Your task to perform on an android device: Go to privacy settings Image 0: 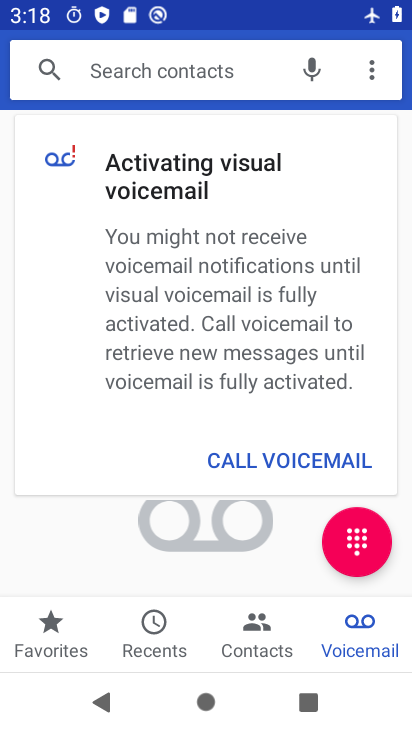
Step 0: press home button
Your task to perform on an android device: Go to privacy settings Image 1: 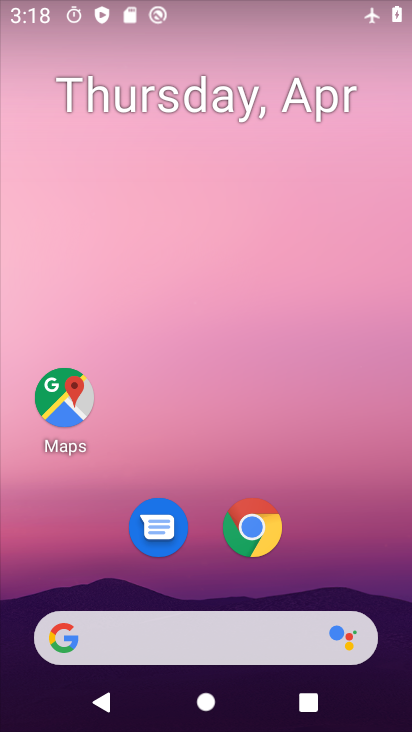
Step 1: drag from (313, 542) to (278, 161)
Your task to perform on an android device: Go to privacy settings Image 2: 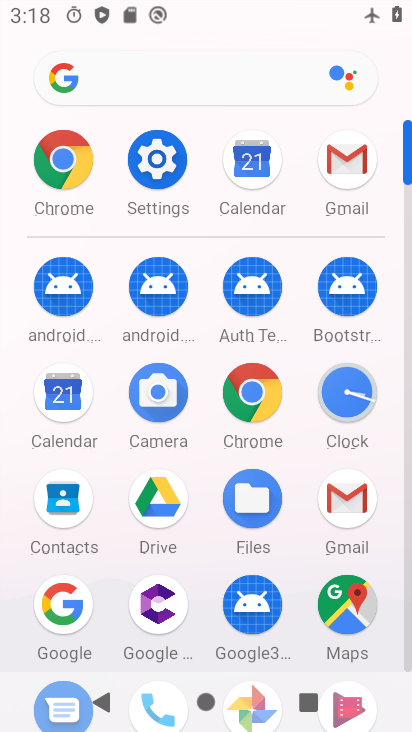
Step 2: click (152, 157)
Your task to perform on an android device: Go to privacy settings Image 3: 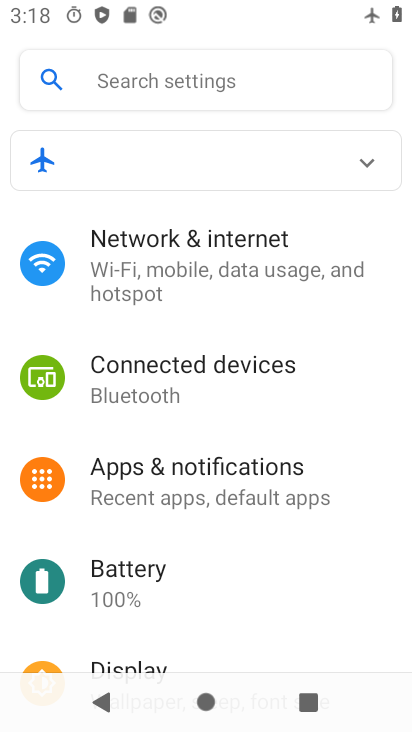
Step 3: drag from (222, 552) to (249, 266)
Your task to perform on an android device: Go to privacy settings Image 4: 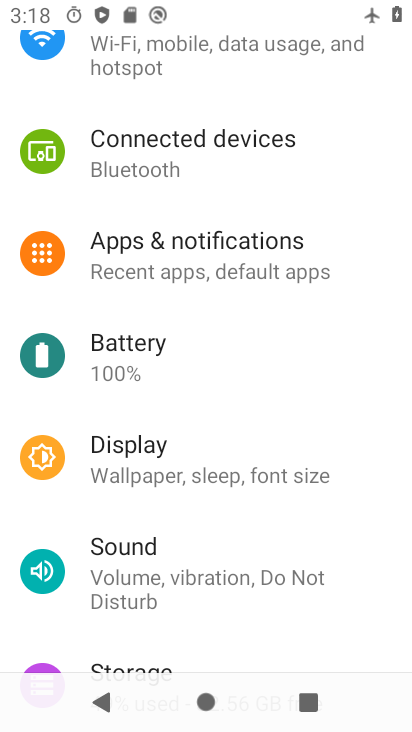
Step 4: drag from (262, 576) to (288, 285)
Your task to perform on an android device: Go to privacy settings Image 5: 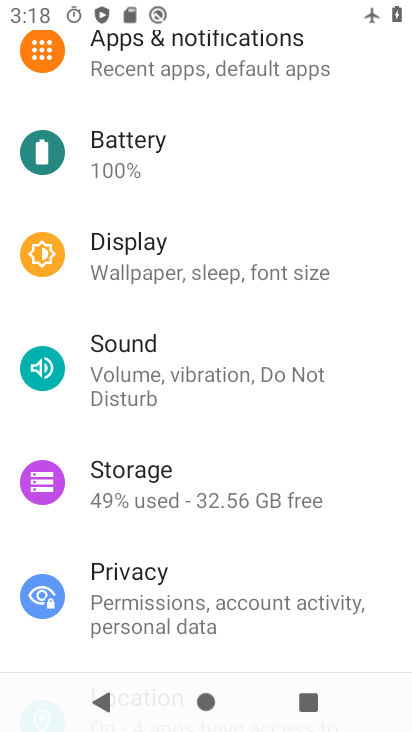
Step 5: click (137, 599)
Your task to perform on an android device: Go to privacy settings Image 6: 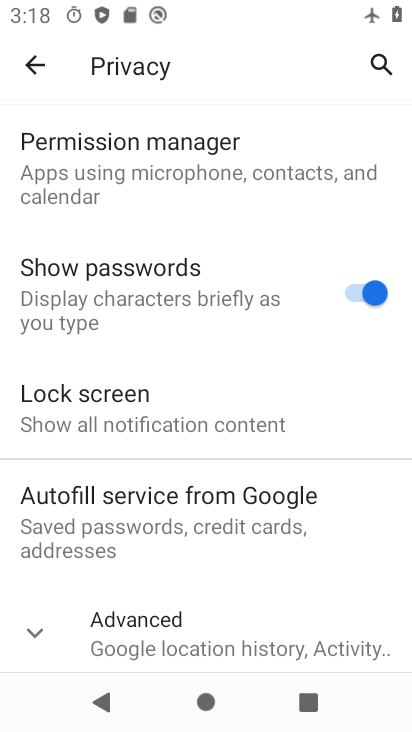
Step 6: task complete